Your task to perform on an android device: Go to privacy settings Image 0: 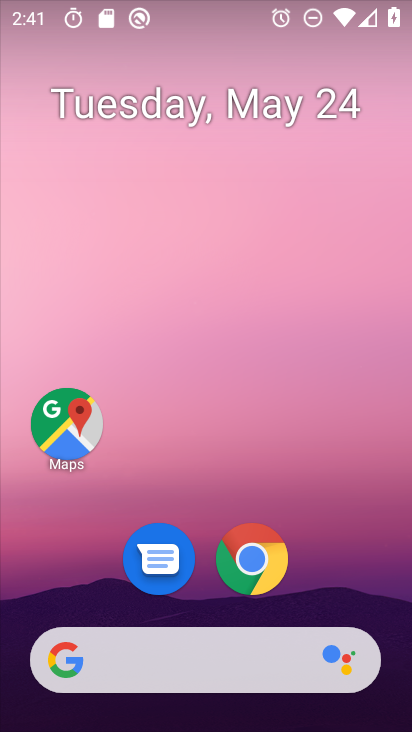
Step 0: click (245, 553)
Your task to perform on an android device: Go to privacy settings Image 1: 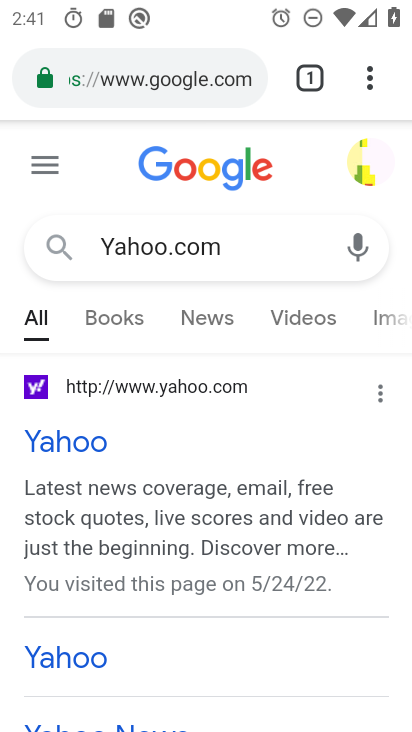
Step 1: click (368, 75)
Your task to perform on an android device: Go to privacy settings Image 2: 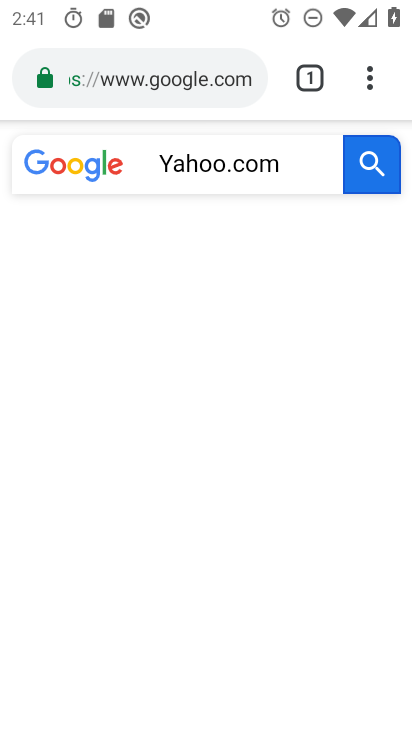
Step 2: click (364, 75)
Your task to perform on an android device: Go to privacy settings Image 3: 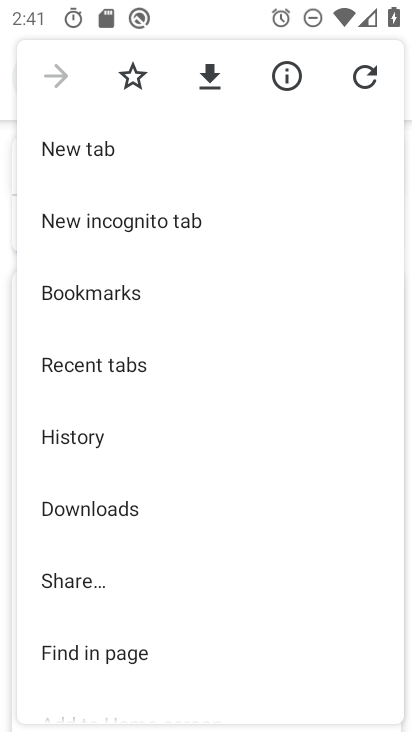
Step 3: drag from (196, 658) to (227, 273)
Your task to perform on an android device: Go to privacy settings Image 4: 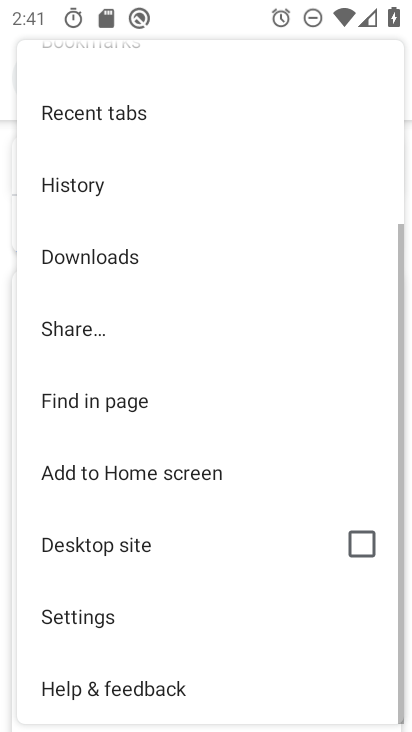
Step 4: click (63, 616)
Your task to perform on an android device: Go to privacy settings Image 5: 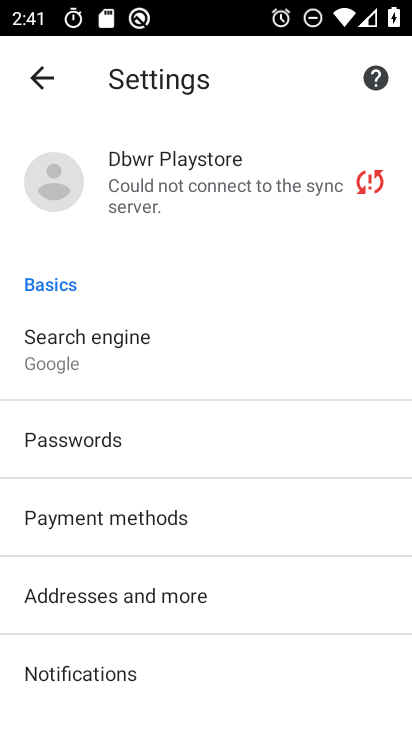
Step 5: drag from (214, 704) to (257, 378)
Your task to perform on an android device: Go to privacy settings Image 6: 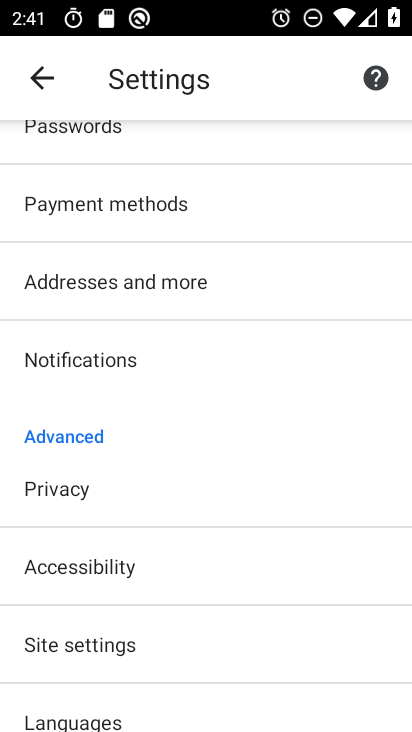
Step 6: click (36, 491)
Your task to perform on an android device: Go to privacy settings Image 7: 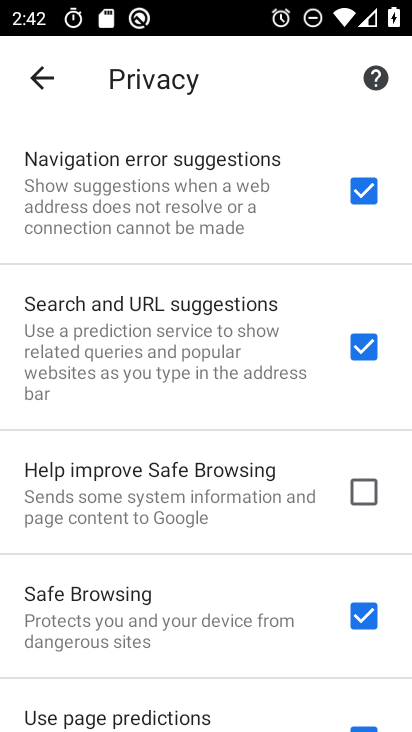
Step 7: task complete